Your task to perform on an android device: Open eBay Image 0: 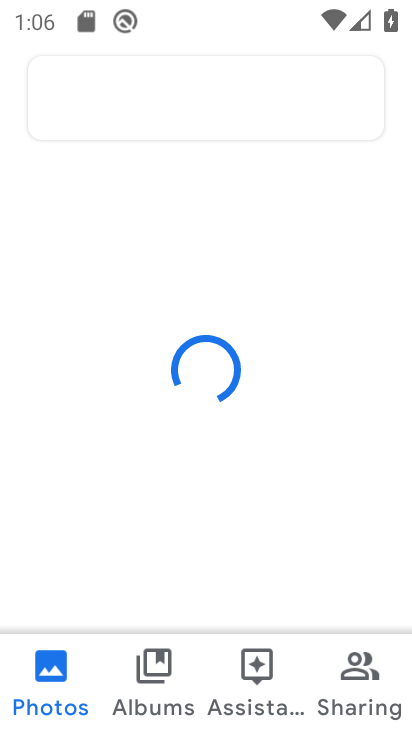
Step 0: press home button
Your task to perform on an android device: Open eBay Image 1: 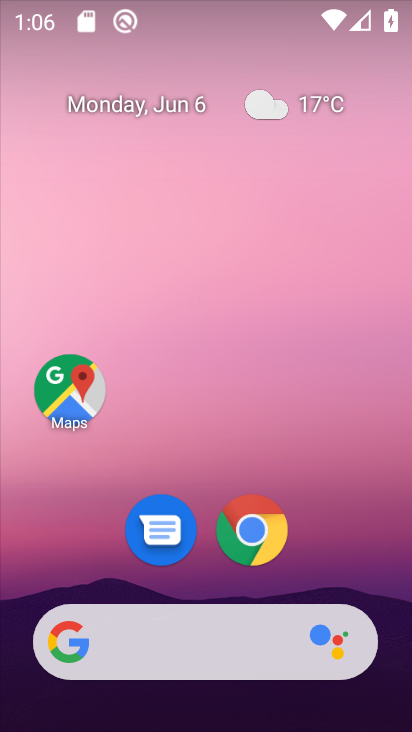
Step 1: click (266, 541)
Your task to perform on an android device: Open eBay Image 2: 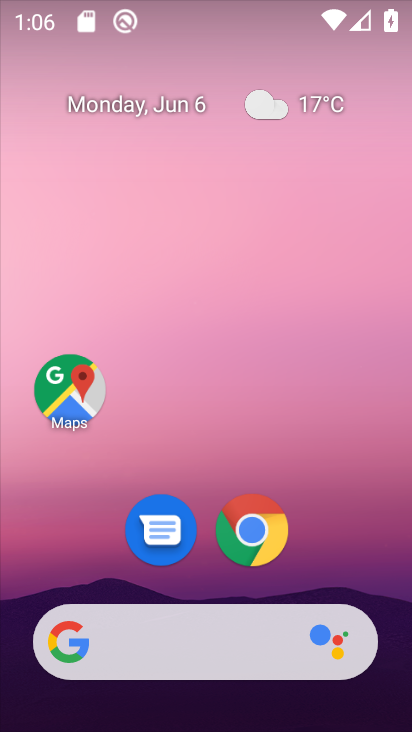
Step 2: click (261, 514)
Your task to perform on an android device: Open eBay Image 3: 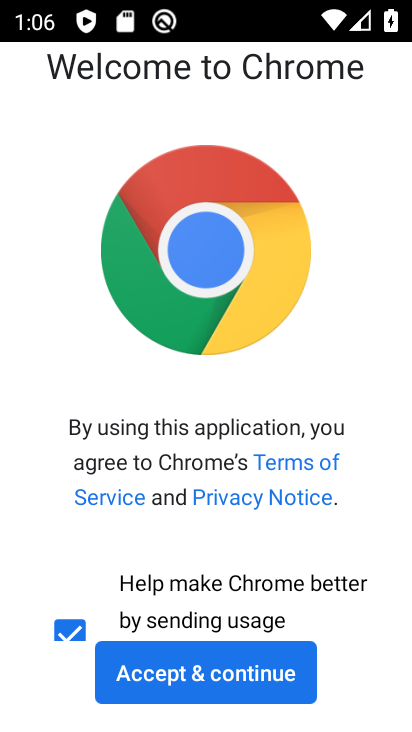
Step 3: click (223, 665)
Your task to perform on an android device: Open eBay Image 4: 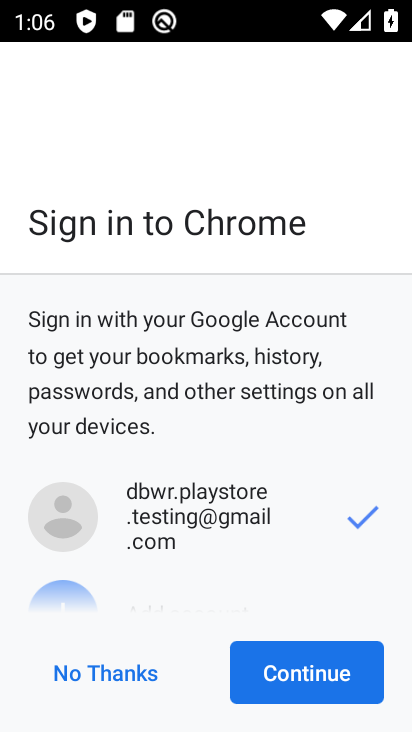
Step 4: click (250, 666)
Your task to perform on an android device: Open eBay Image 5: 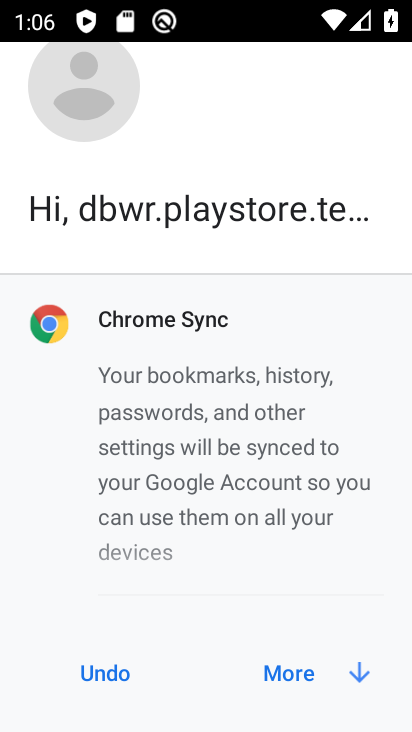
Step 5: click (266, 673)
Your task to perform on an android device: Open eBay Image 6: 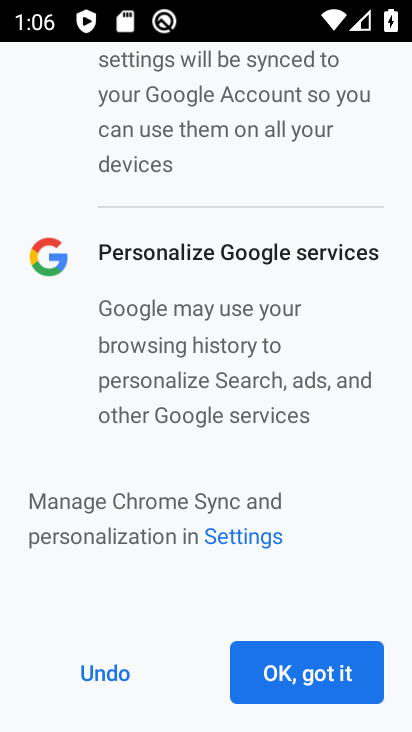
Step 6: click (273, 675)
Your task to perform on an android device: Open eBay Image 7: 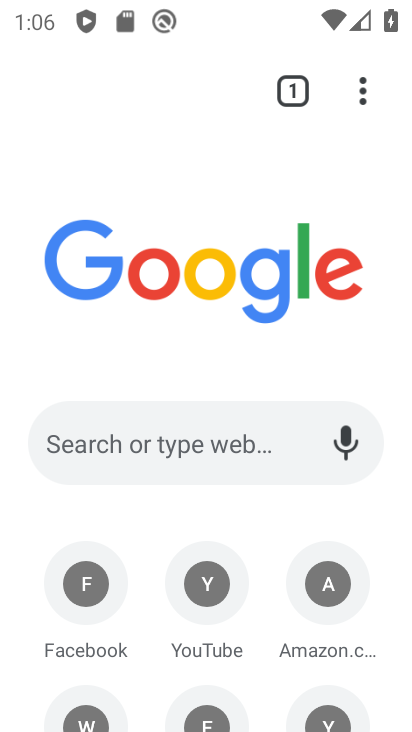
Step 7: drag from (252, 650) to (256, 466)
Your task to perform on an android device: Open eBay Image 8: 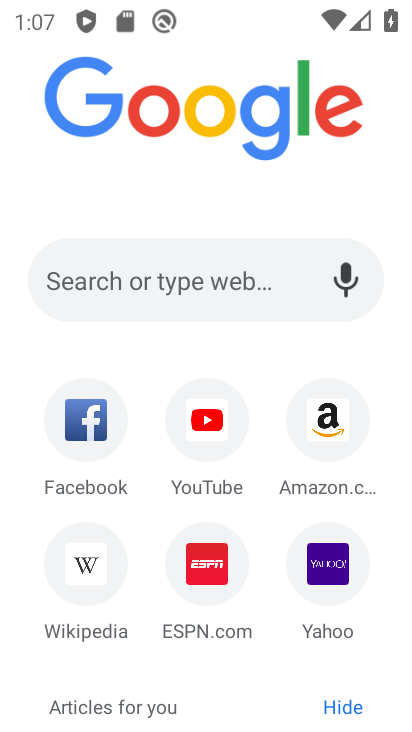
Step 8: click (168, 260)
Your task to perform on an android device: Open eBay Image 9: 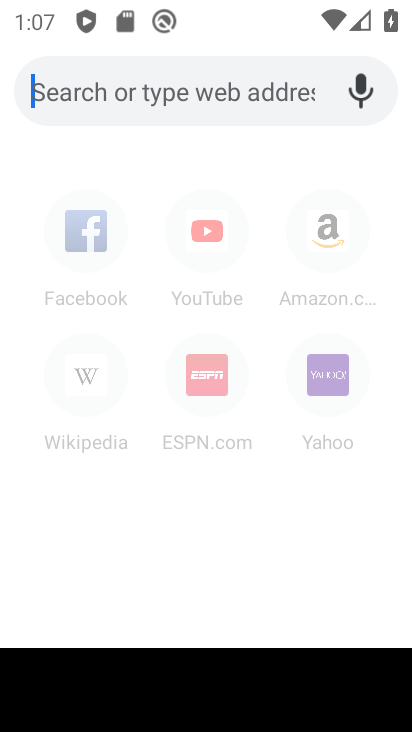
Step 9: type "eBay"
Your task to perform on an android device: Open eBay Image 10: 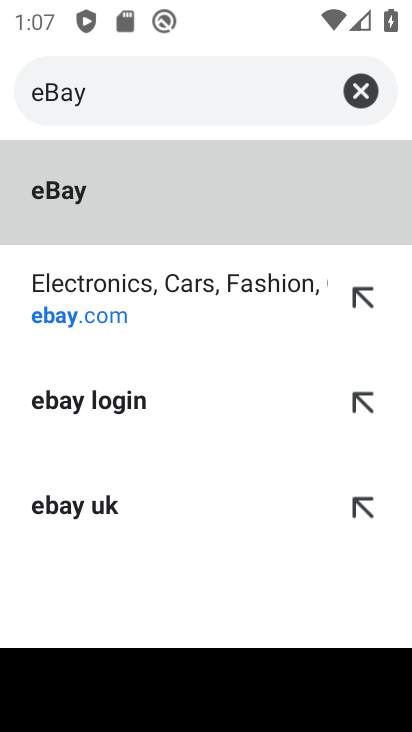
Step 10: click (202, 186)
Your task to perform on an android device: Open eBay Image 11: 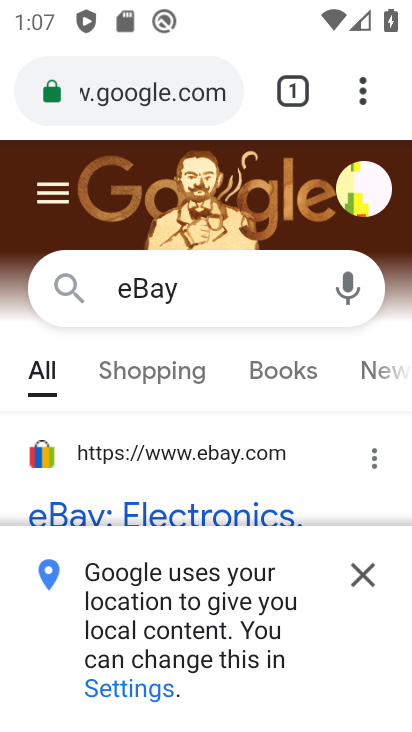
Step 11: task complete